Your task to perform on an android device: When is my next appointment? Image 0: 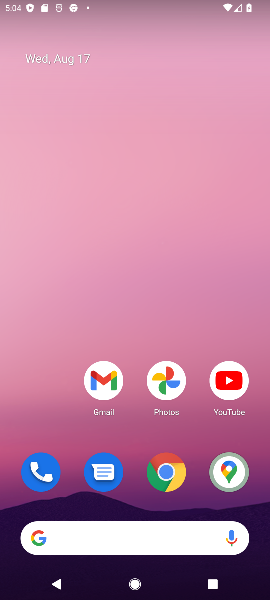
Step 0: drag from (146, 427) to (149, 108)
Your task to perform on an android device: When is my next appointment? Image 1: 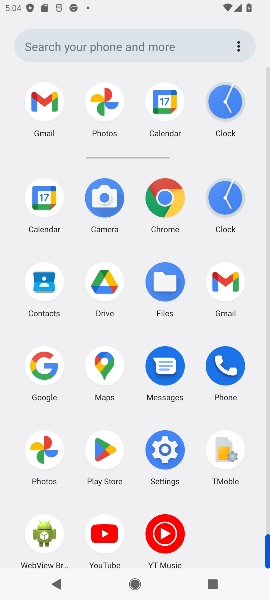
Step 1: click (160, 105)
Your task to perform on an android device: When is my next appointment? Image 2: 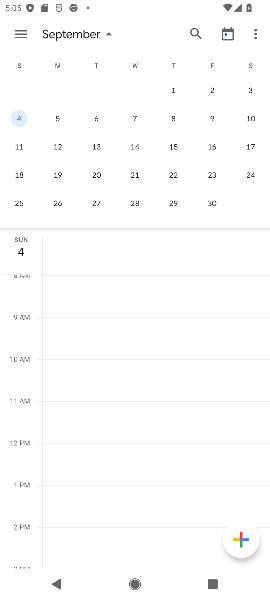
Step 2: click (54, 126)
Your task to perform on an android device: When is my next appointment? Image 3: 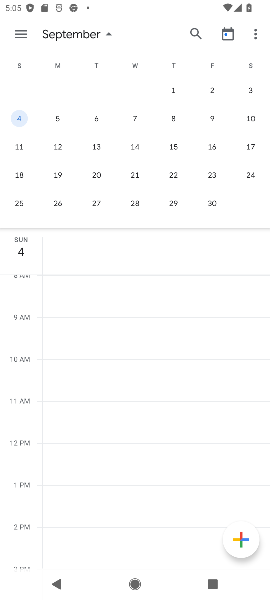
Step 3: click (89, 131)
Your task to perform on an android device: When is my next appointment? Image 4: 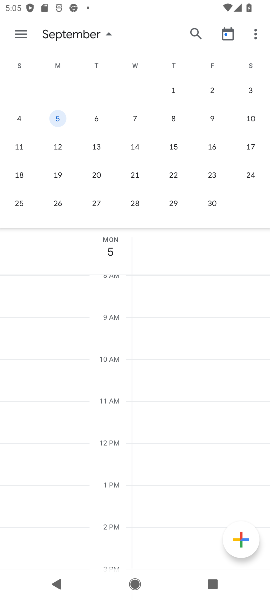
Step 4: click (115, 149)
Your task to perform on an android device: When is my next appointment? Image 5: 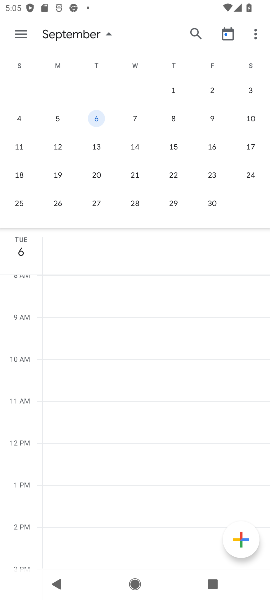
Step 5: task complete